Your task to perform on an android device: Open maps Image 0: 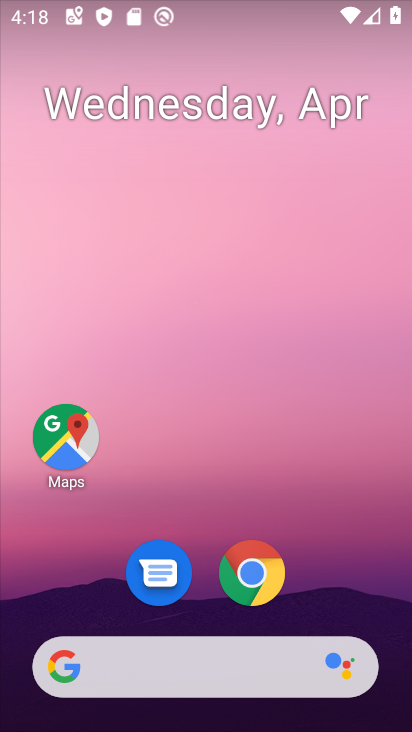
Step 0: click (64, 443)
Your task to perform on an android device: Open maps Image 1: 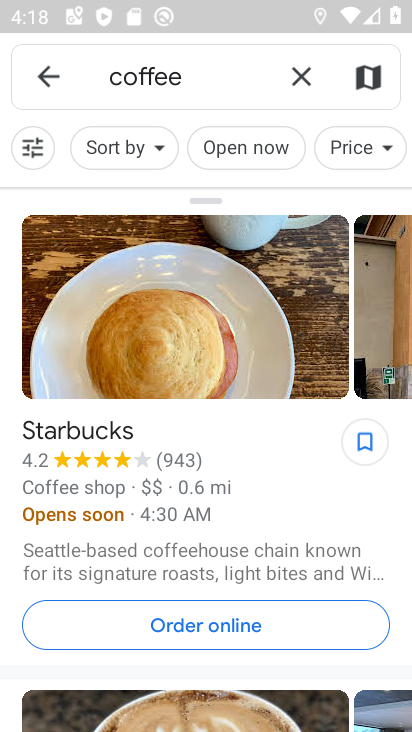
Step 1: task complete